Your task to perform on an android device: Open Google Maps Image 0: 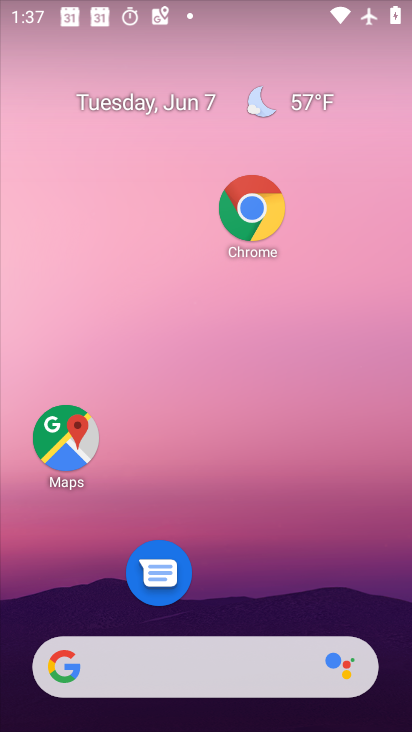
Step 0: click (79, 449)
Your task to perform on an android device: Open Google Maps Image 1: 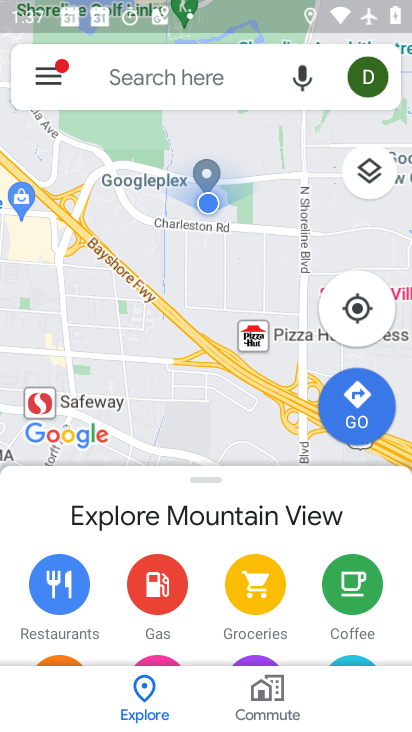
Step 1: task complete